Your task to perform on an android device: Add usb-c to usb-b to the cart on ebay Image 0: 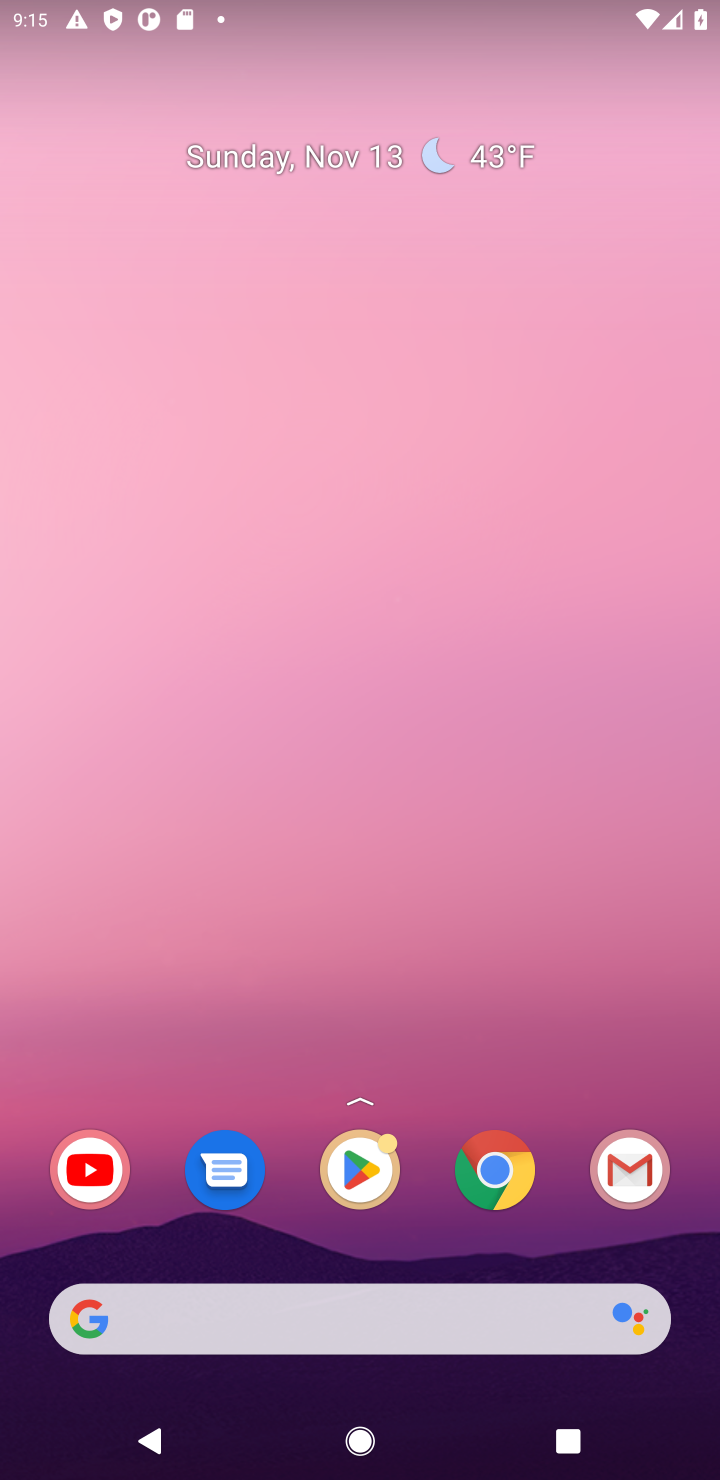
Step 0: drag from (365, 839) to (504, 199)
Your task to perform on an android device: Add usb-c to usb-b to the cart on ebay Image 1: 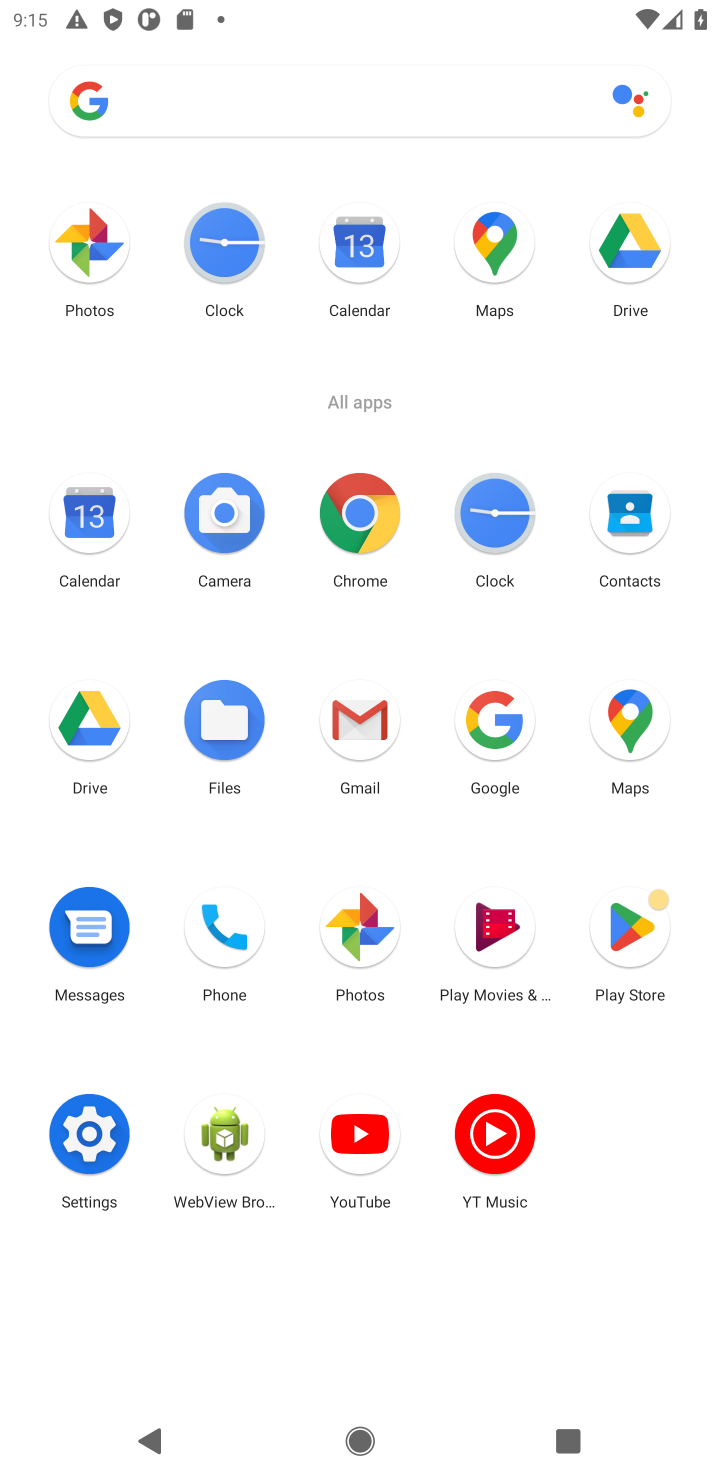
Step 1: click (356, 522)
Your task to perform on an android device: Add usb-c to usb-b to the cart on ebay Image 2: 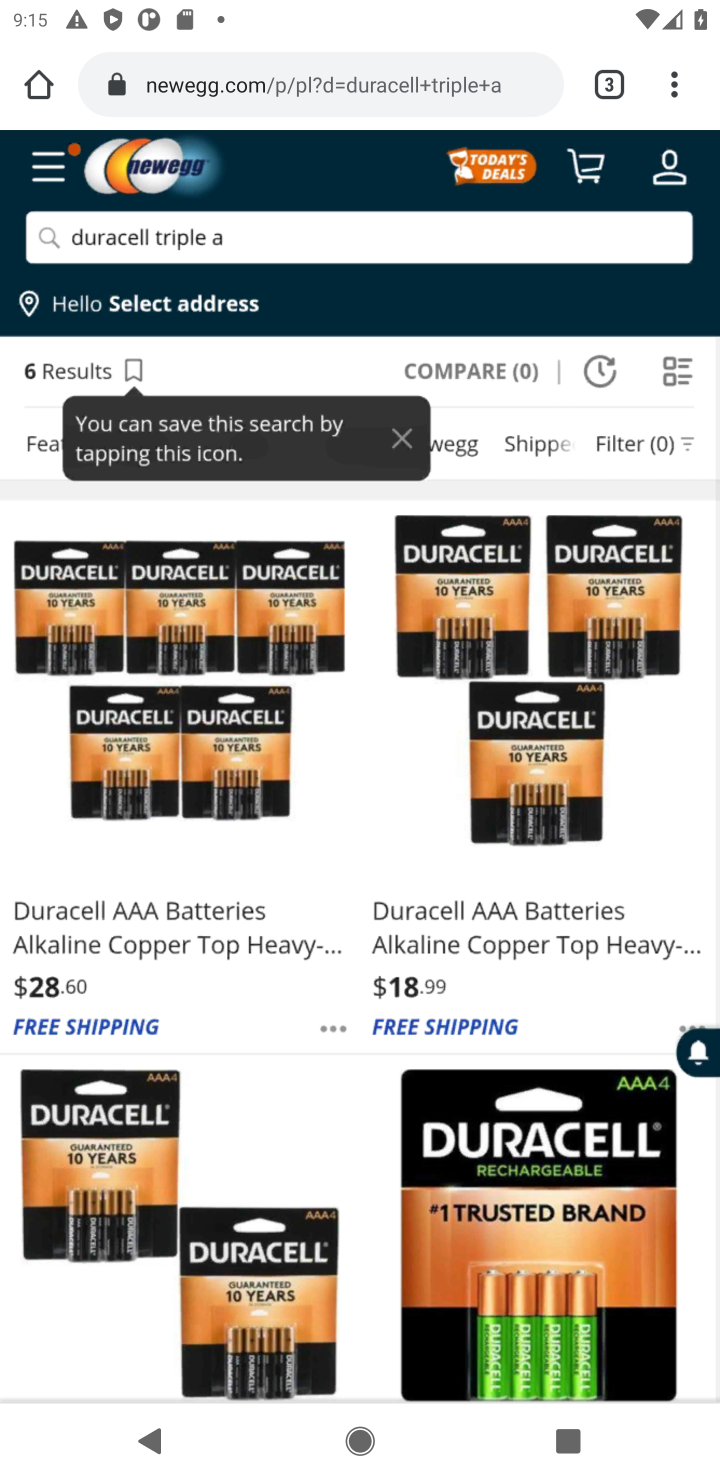
Step 2: click (315, 86)
Your task to perform on an android device: Add usb-c to usb-b to the cart on ebay Image 3: 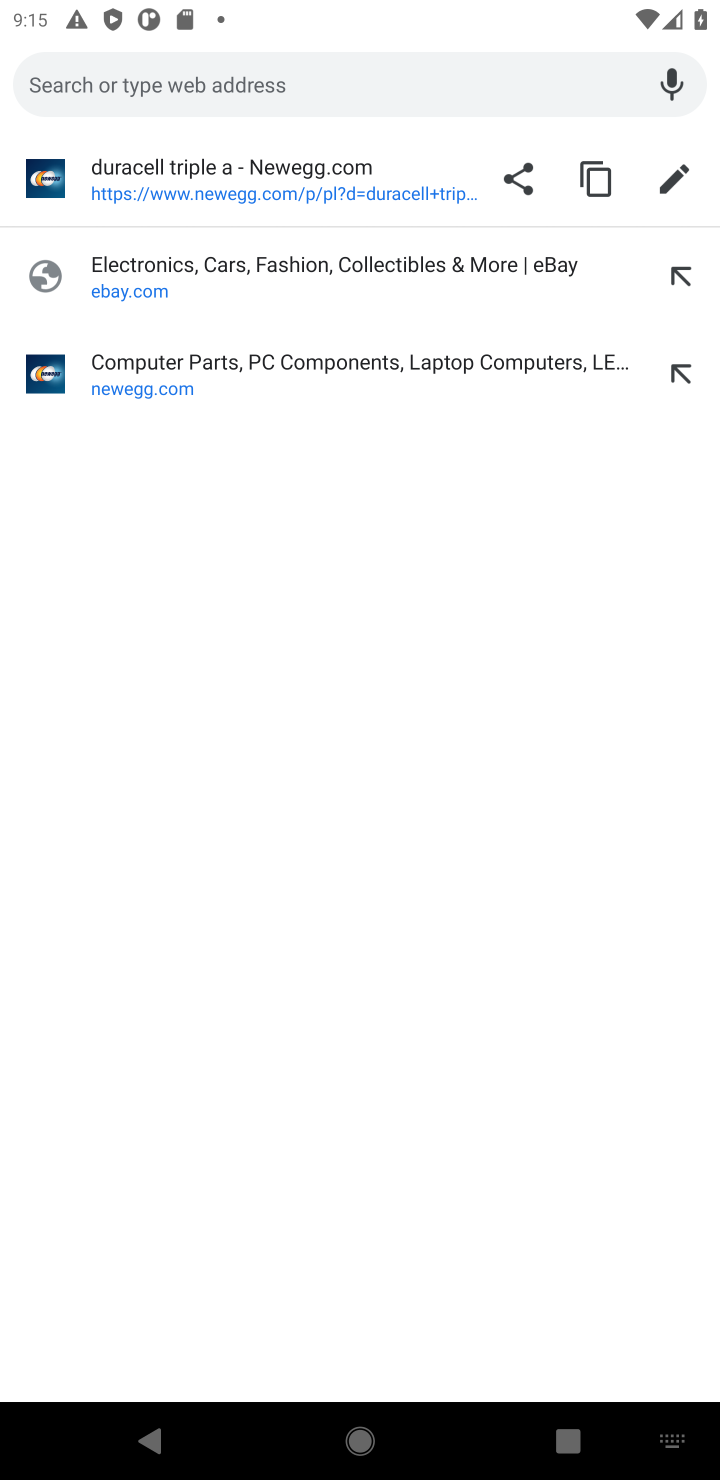
Step 3: type "ebay"
Your task to perform on an android device: Add usb-c to usb-b to the cart on ebay Image 4: 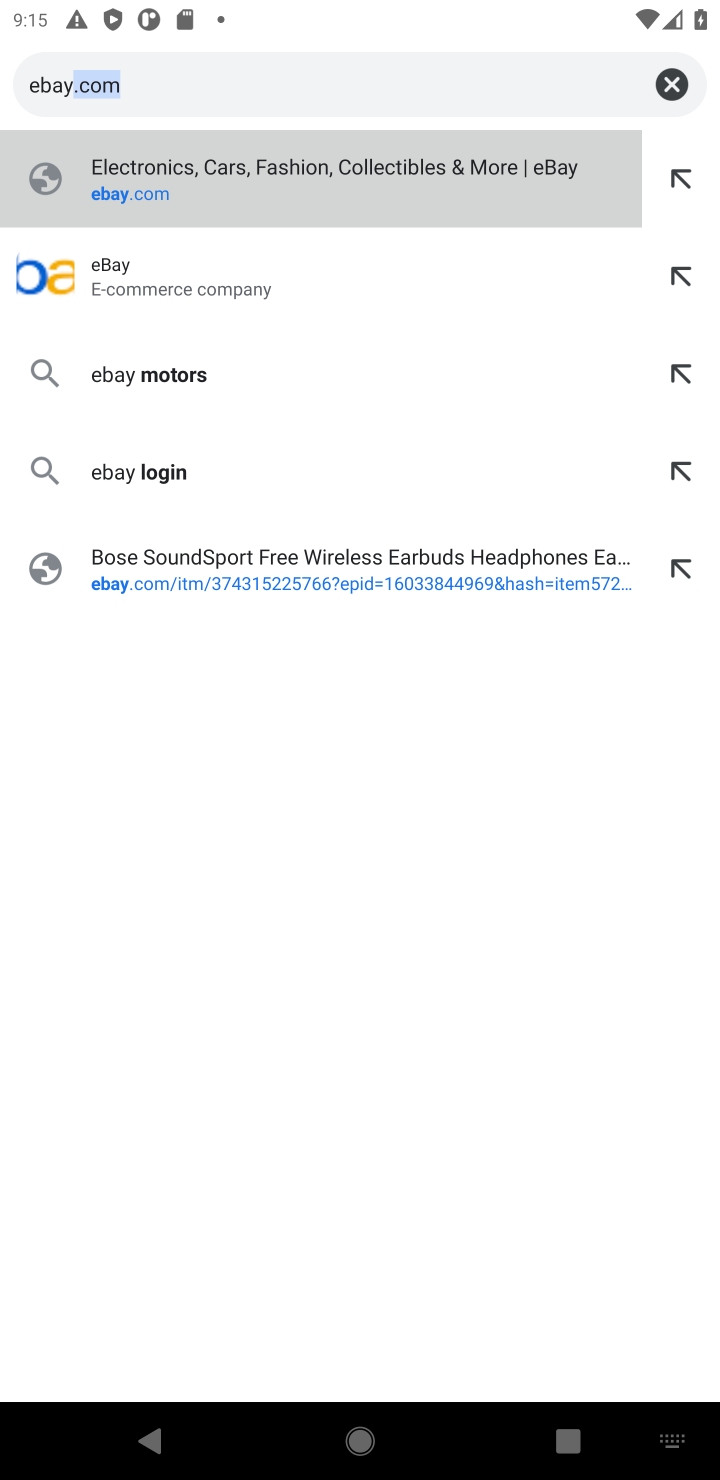
Step 4: press enter
Your task to perform on an android device: Add usb-c to usb-b to the cart on ebay Image 5: 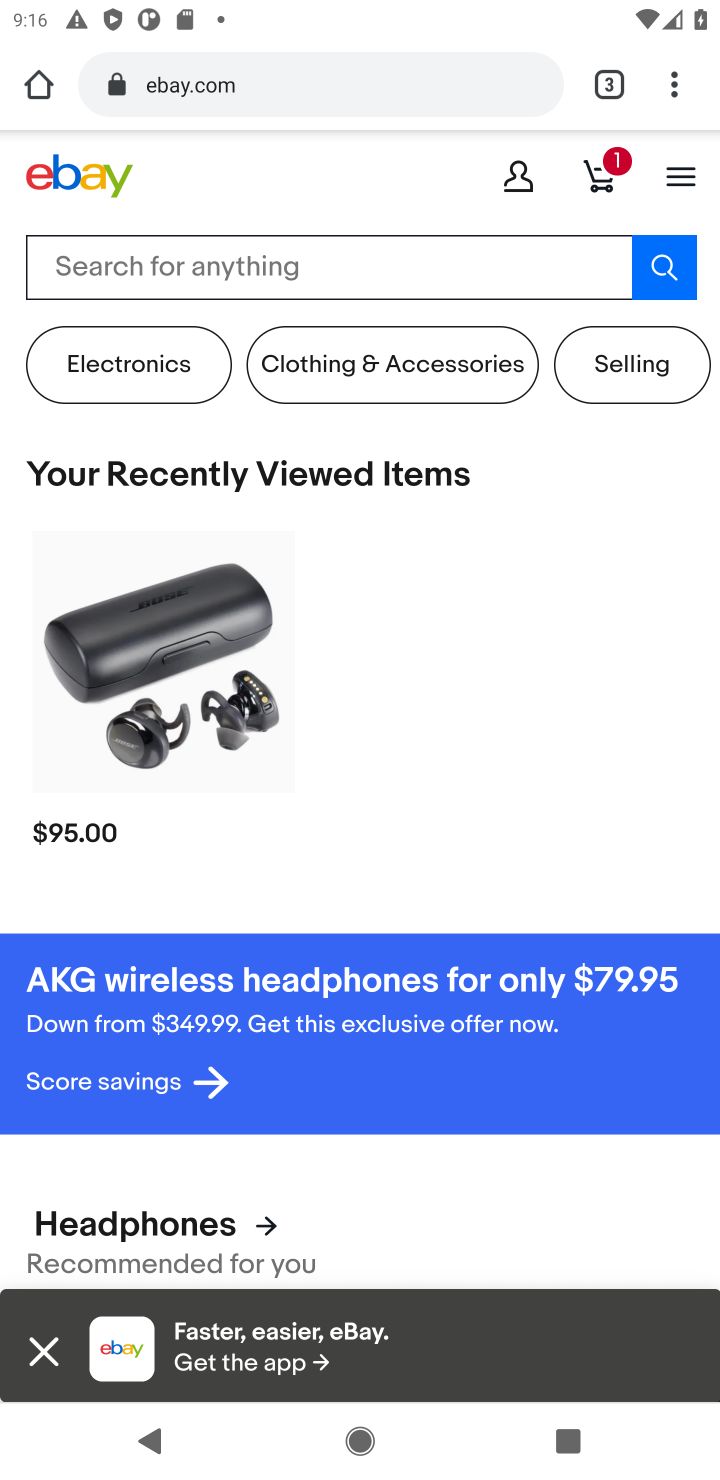
Step 5: type "usb-c to usb-b"
Your task to perform on an android device: Add usb-c to usb-b to the cart on ebay Image 6: 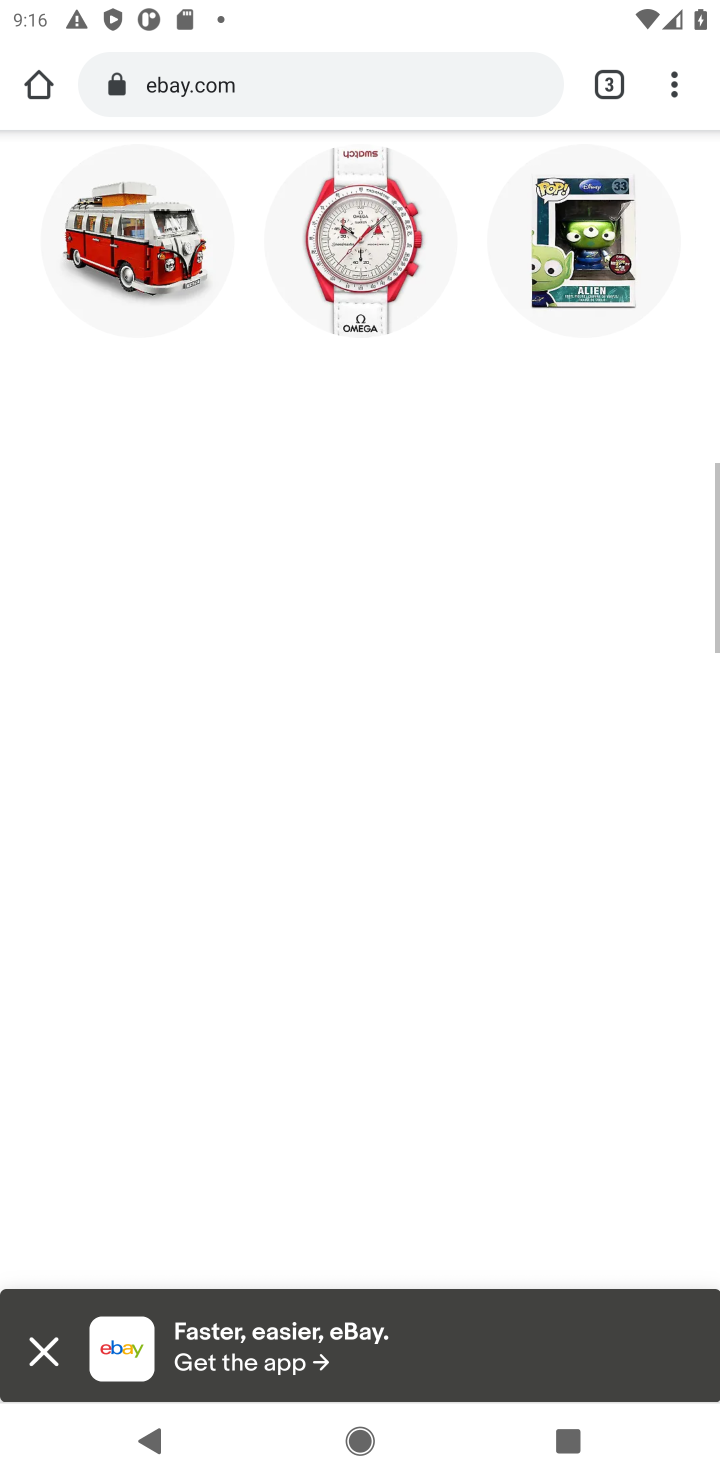
Step 6: press enter
Your task to perform on an android device: Add usb-c to usb-b to the cart on ebay Image 7: 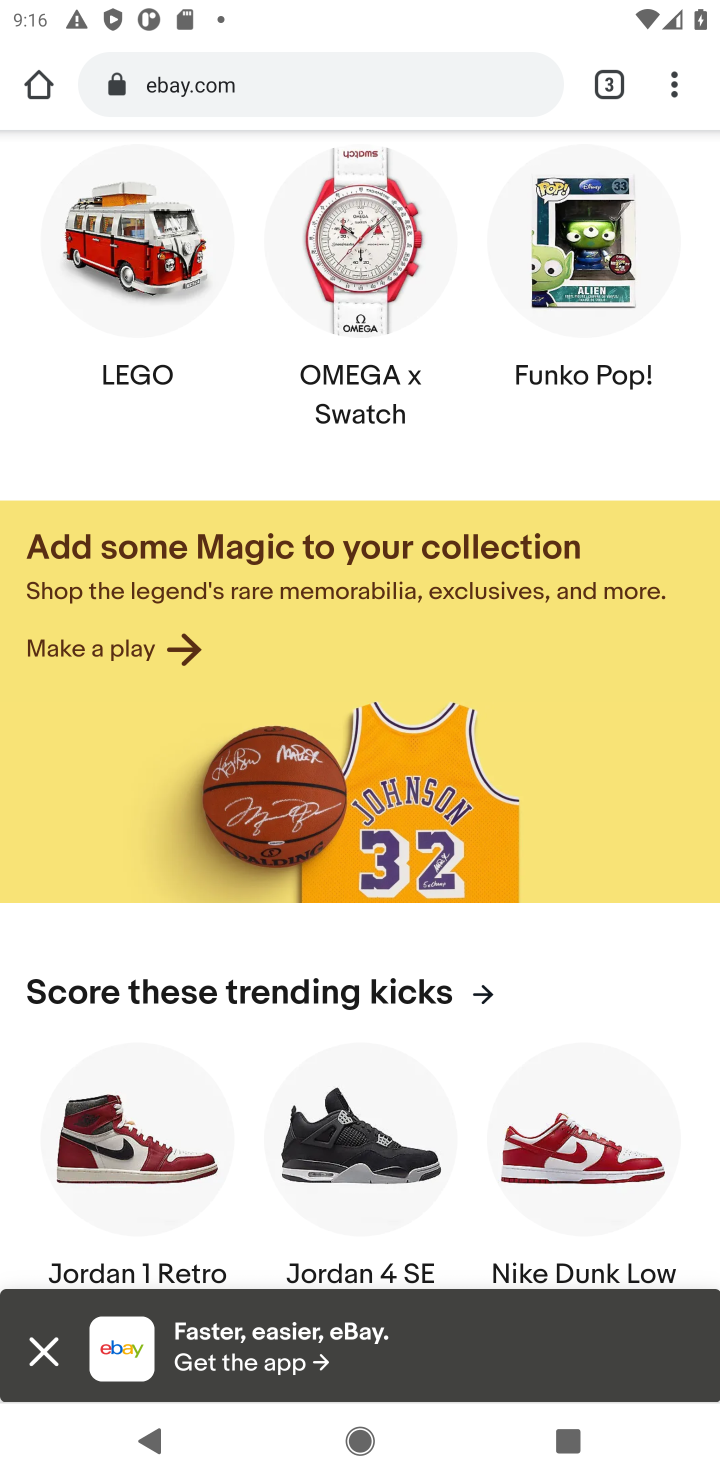
Step 7: drag from (511, 965) to (503, 1043)
Your task to perform on an android device: Add usb-c to usb-b to the cart on ebay Image 8: 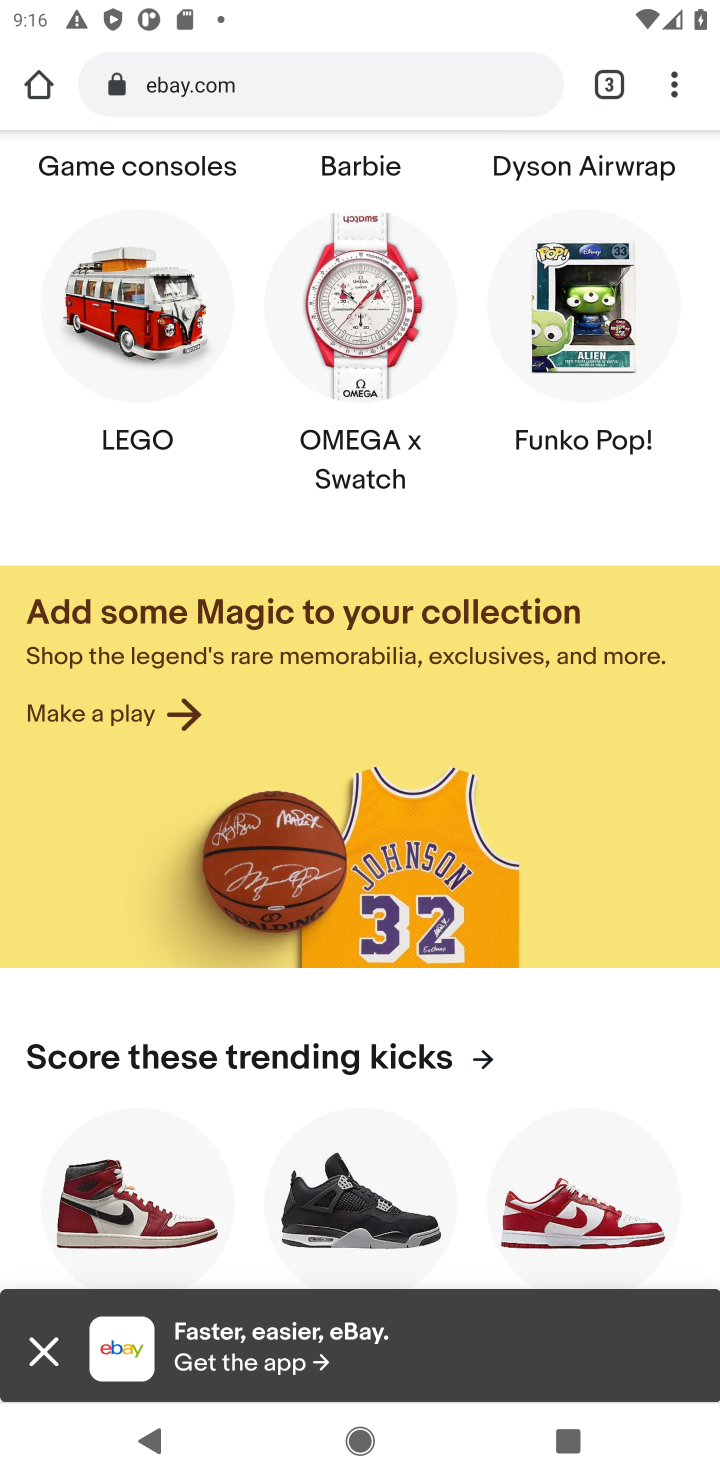
Step 8: drag from (565, 728) to (514, 916)
Your task to perform on an android device: Add usb-c to usb-b to the cart on ebay Image 9: 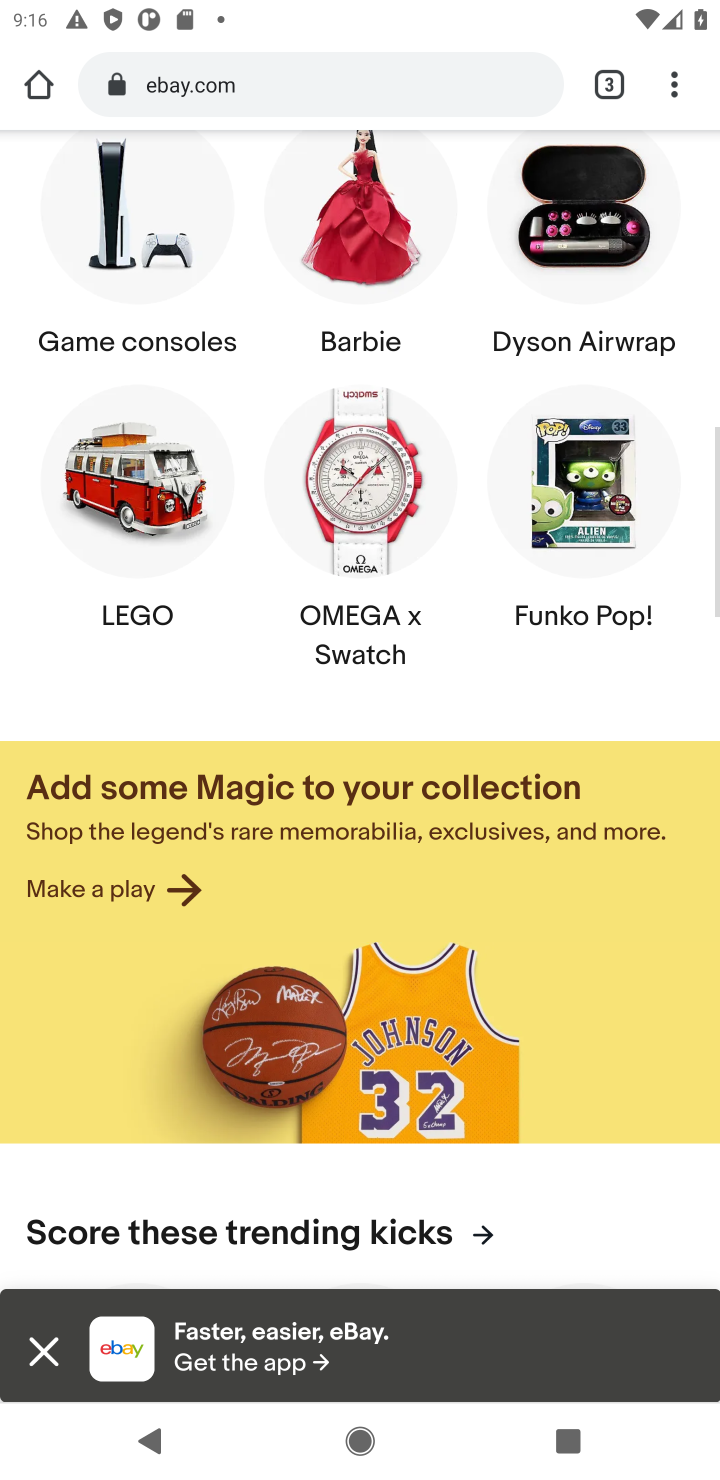
Step 9: drag from (462, 454) to (419, 918)
Your task to perform on an android device: Add usb-c to usb-b to the cart on ebay Image 10: 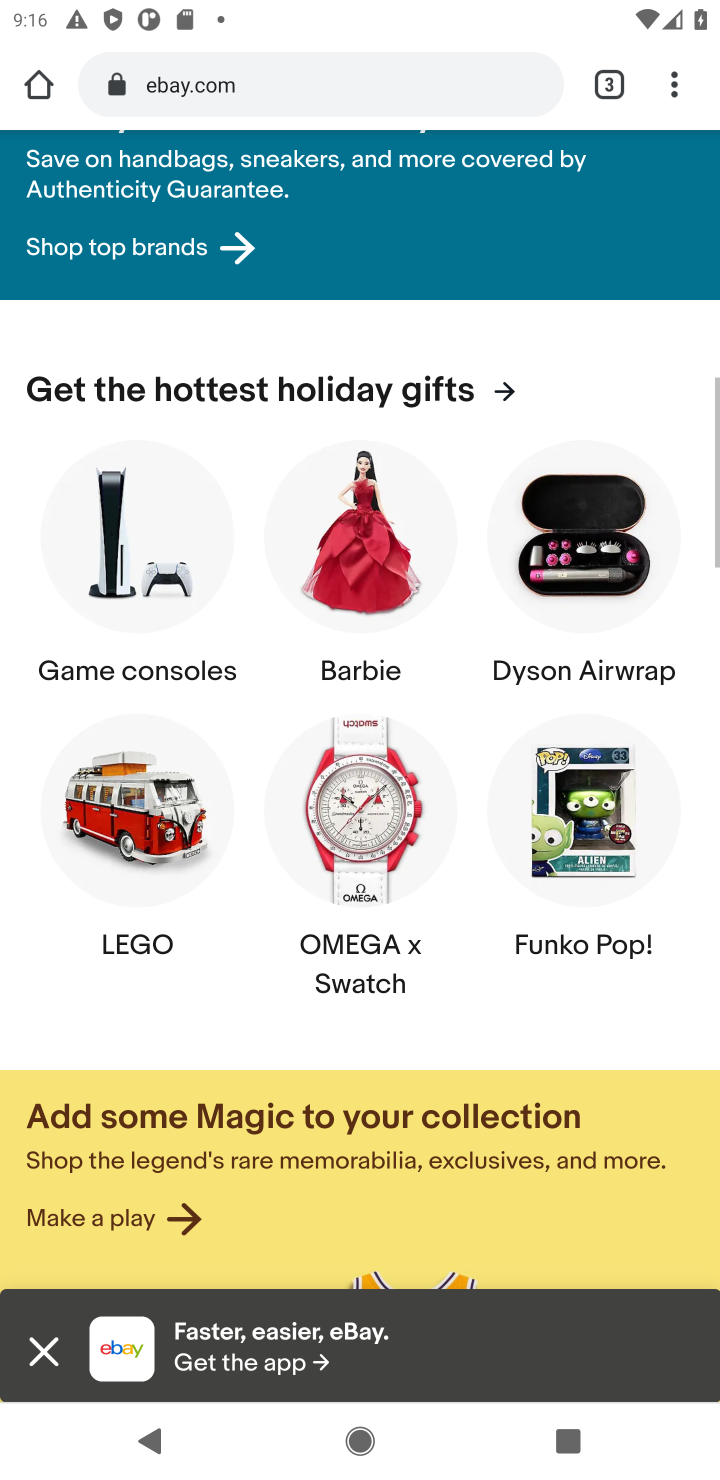
Step 10: drag from (659, 909) to (624, 1080)
Your task to perform on an android device: Add usb-c to usb-b to the cart on ebay Image 11: 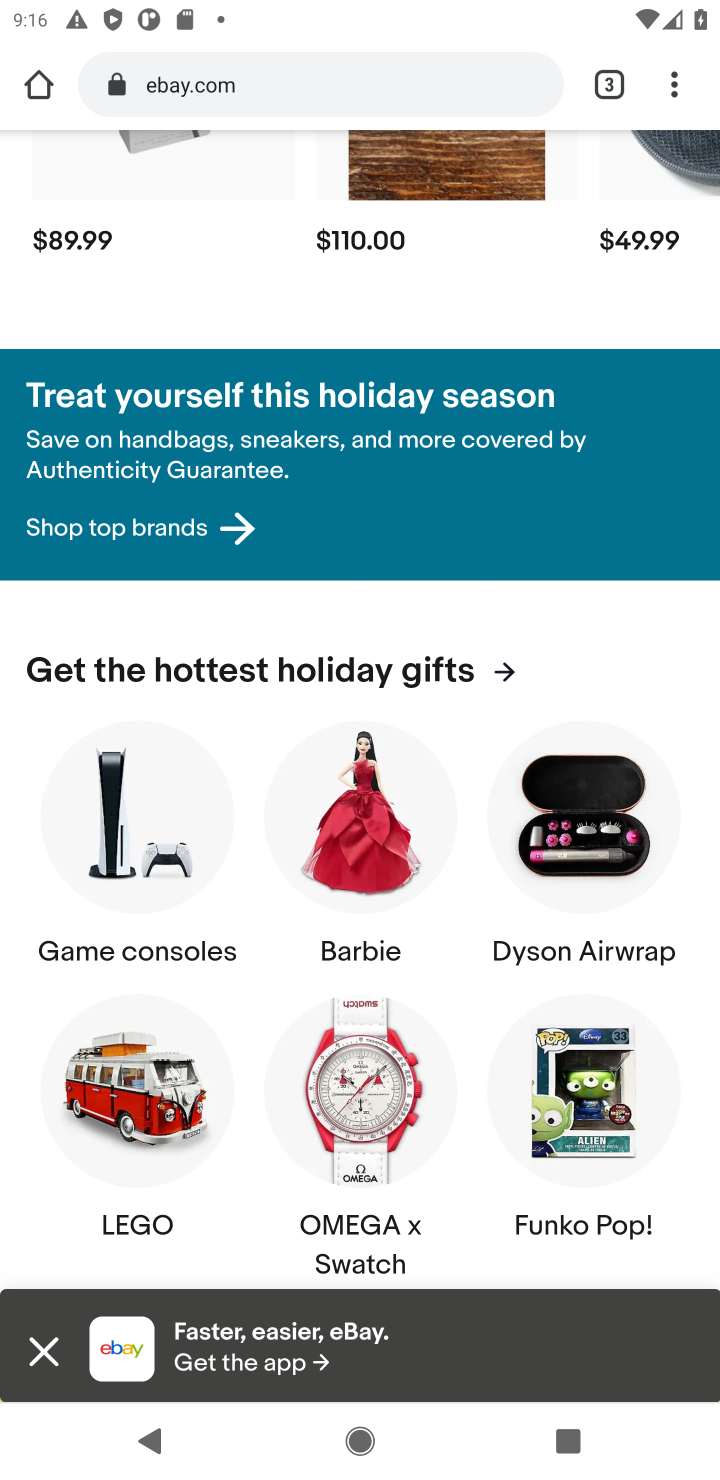
Step 11: drag from (376, 474) to (302, 791)
Your task to perform on an android device: Add usb-c to usb-b to the cart on ebay Image 12: 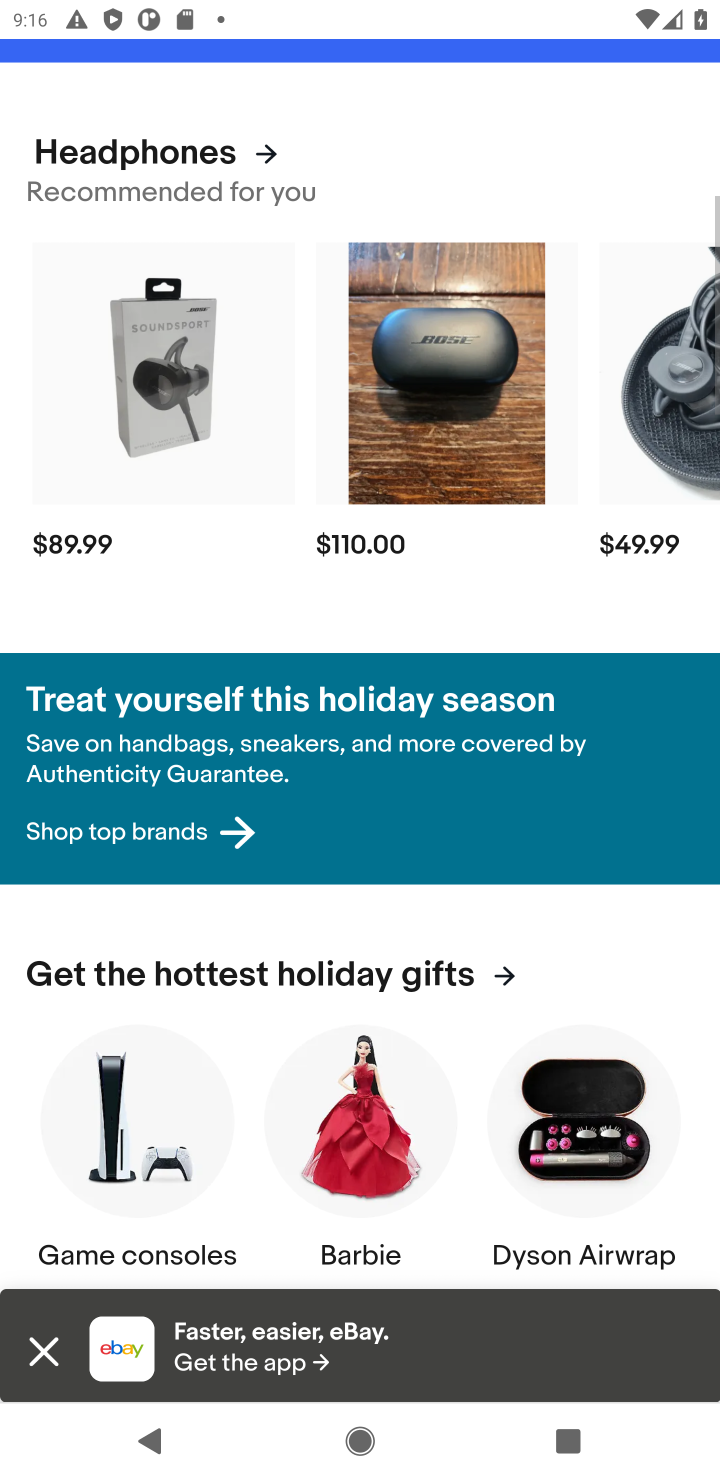
Step 12: click (301, 738)
Your task to perform on an android device: Add usb-c to usb-b to the cart on ebay Image 13: 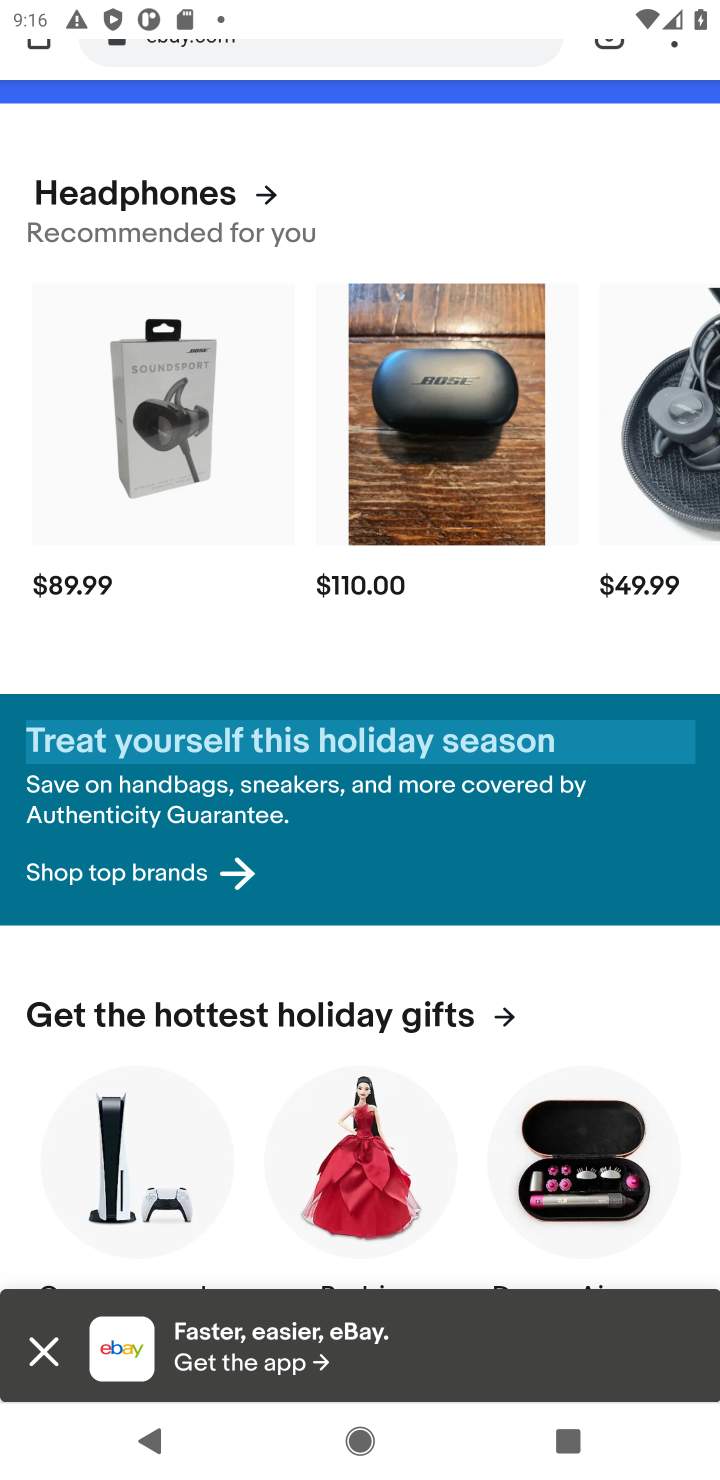
Step 13: click (443, 427)
Your task to perform on an android device: Add usb-c to usb-b to the cart on ebay Image 14: 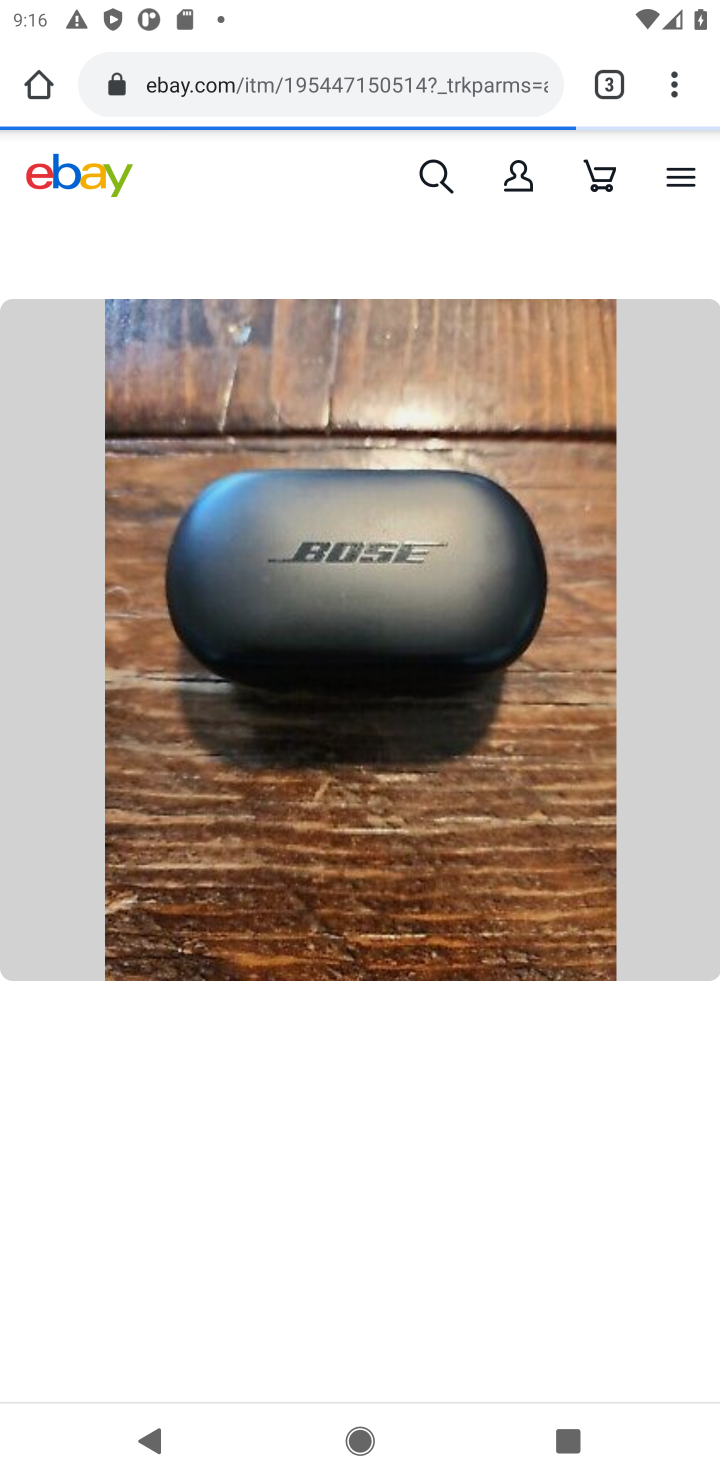
Step 14: press back button
Your task to perform on an android device: Add usb-c to usb-b to the cart on ebay Image 15: 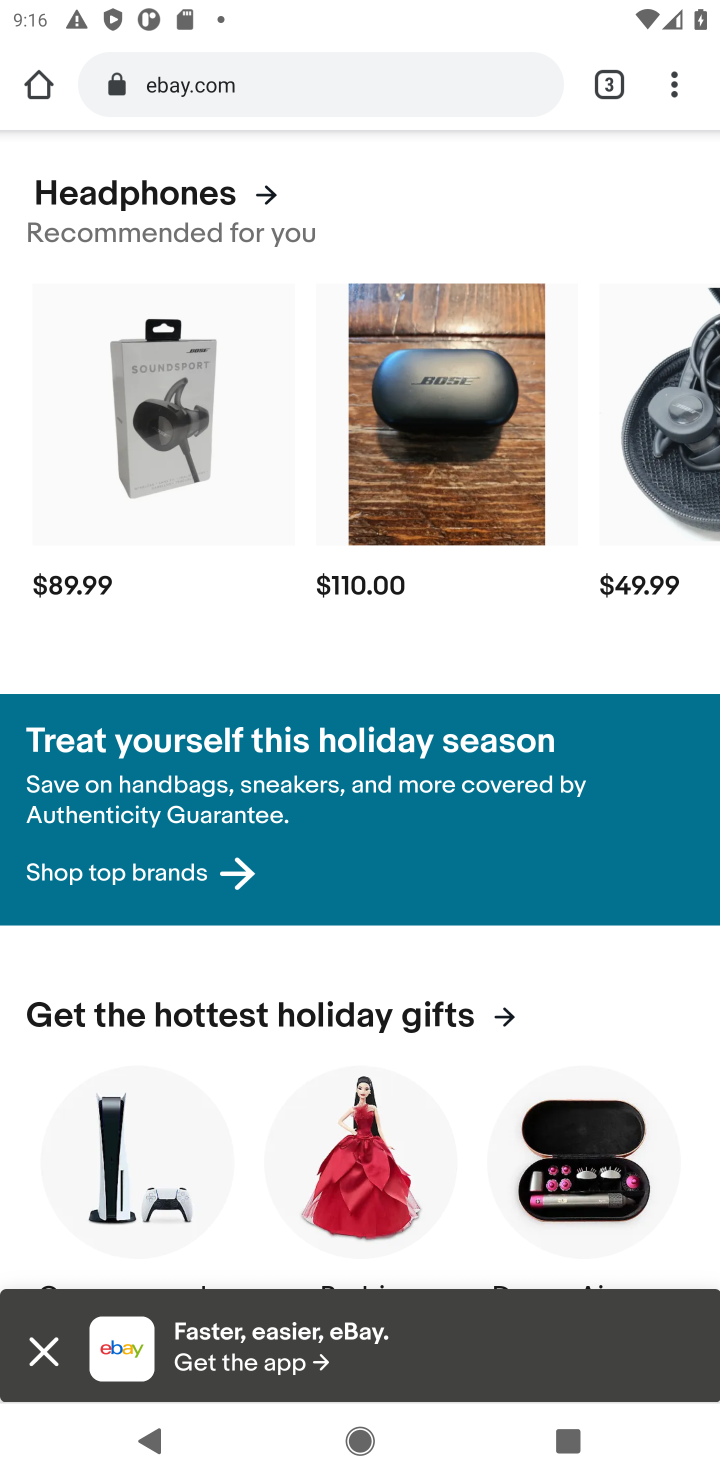
Step 15: drag from (463, 242) to (372, 1422)
Your task to perform on an android device: Add usb-c to usb-b to the cart on ebay Image 16: 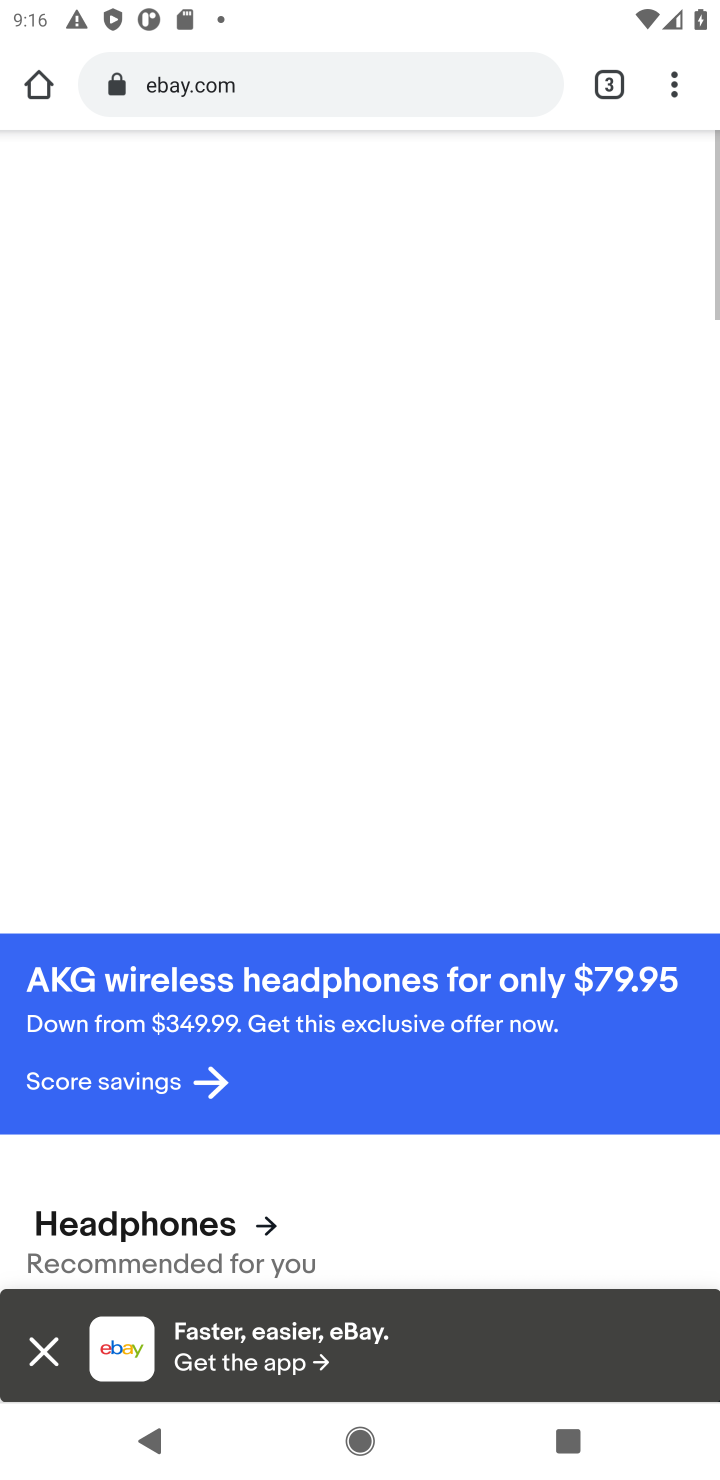
Step 16: drag from (459, 796) to (484, 1216)
Your task to perform on an android device: Add usb-c to usb-b to the cart on ebay Image 17: 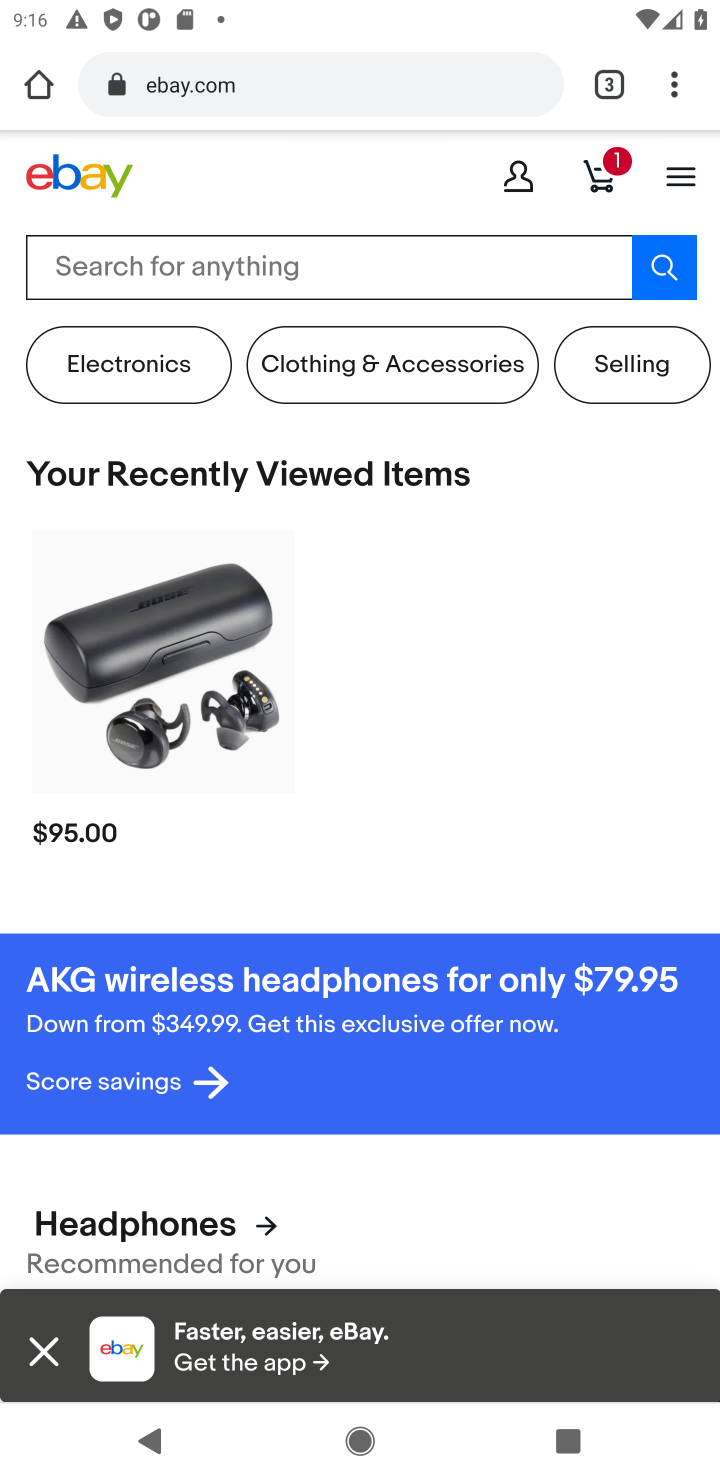
Step 17: drag from (588, 301) to (501, 1106)
Your task to perform on an android device: Add usb-c to usb-b to the cart on ebay Image 18: 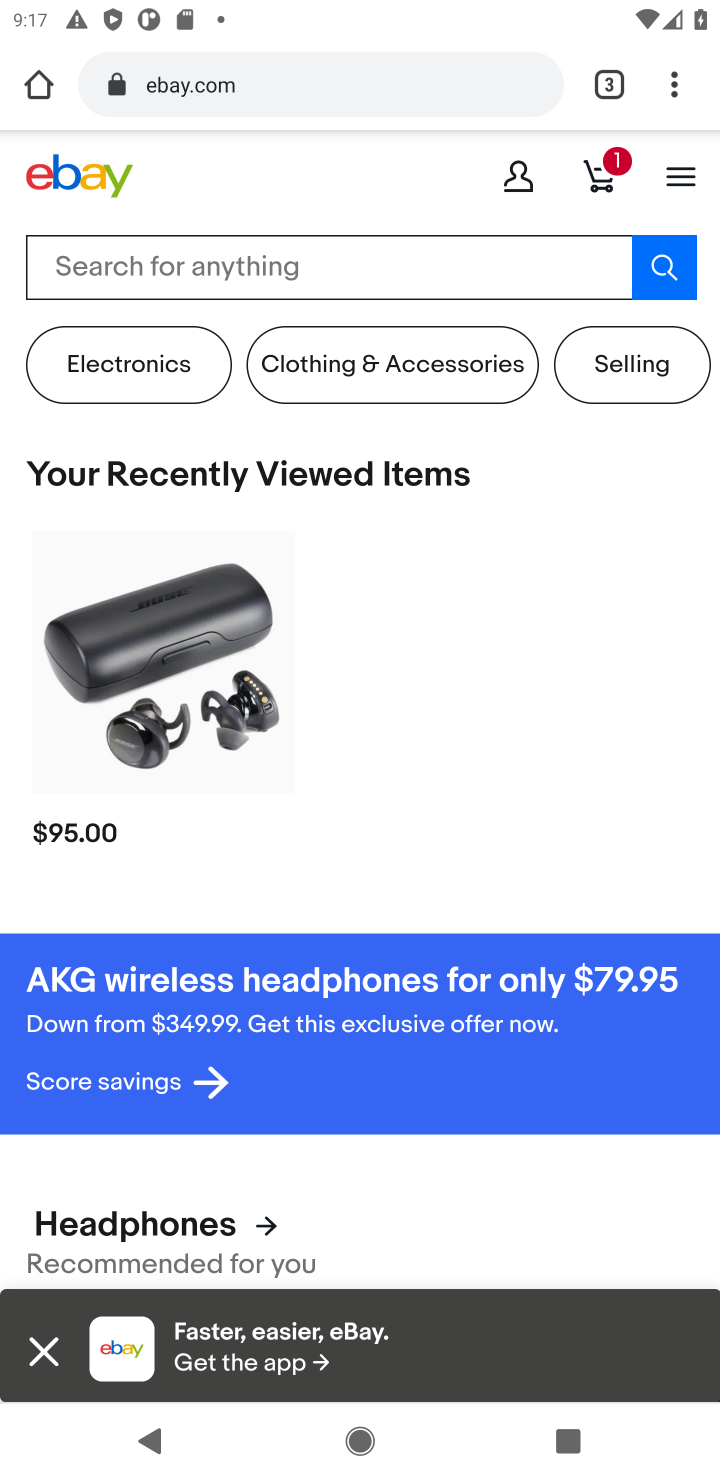
Step 18: click (279, 253)
Your task to perform on an android device: Add usb-c to usb-b to the cart on ebay Image 19: 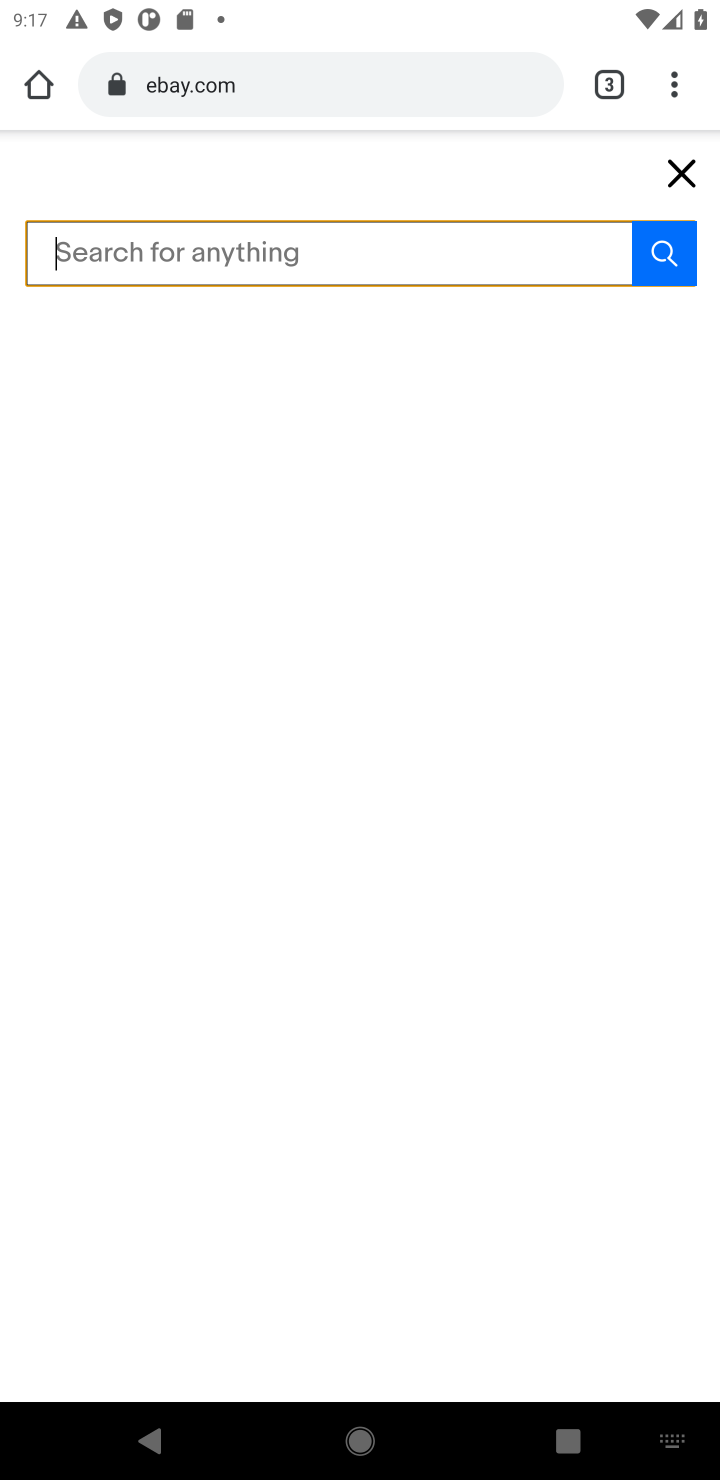
Step 19: type "usb-c to usb-b "
Your task to perform on an android device: Add usb-c to usb-b to the cart on ebay Image 20: 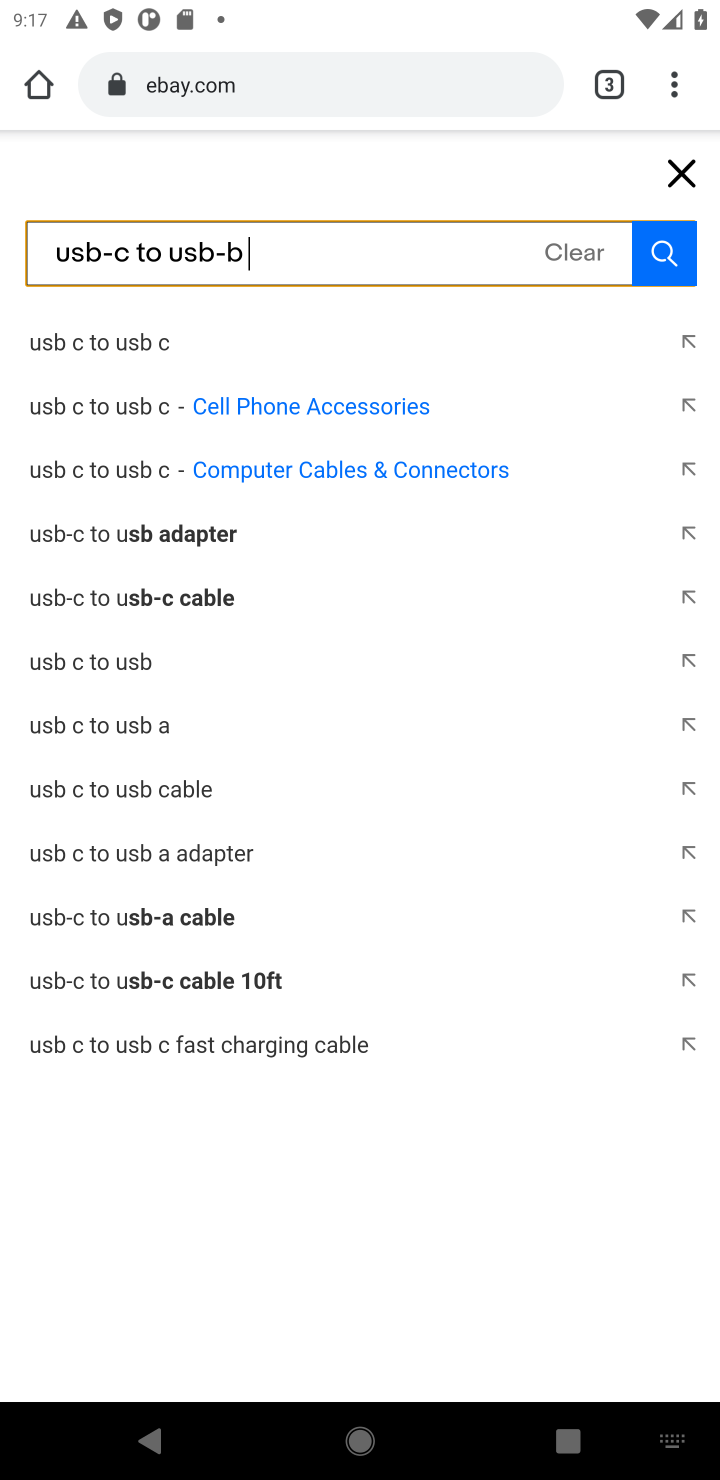
Step 20: press enter
Your task to perform on an android device: Add usb-c to usb-b to the cart on ebay Image 21: 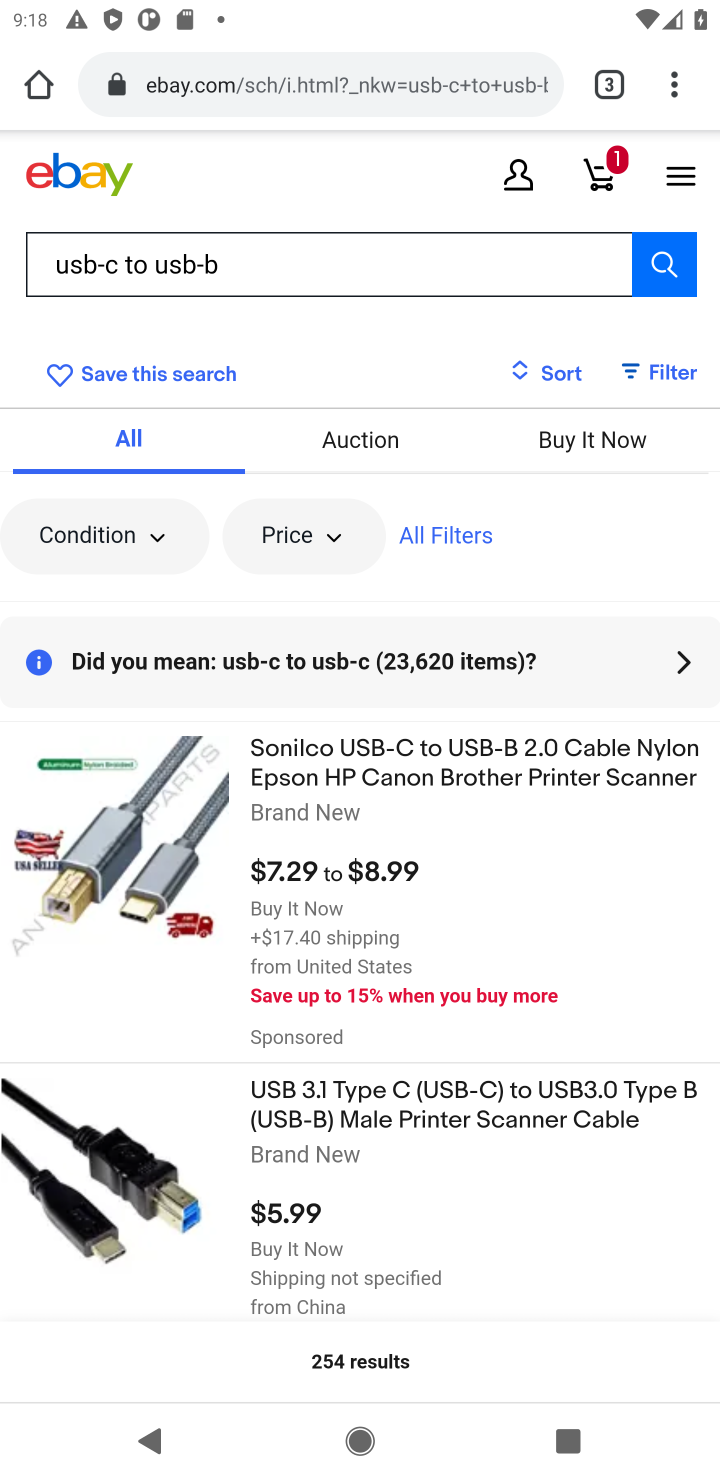
Step 21: click (607, 760)
Your task to perform on an android device: Add usb-c to usb-b to the cart on ebay Image 22: 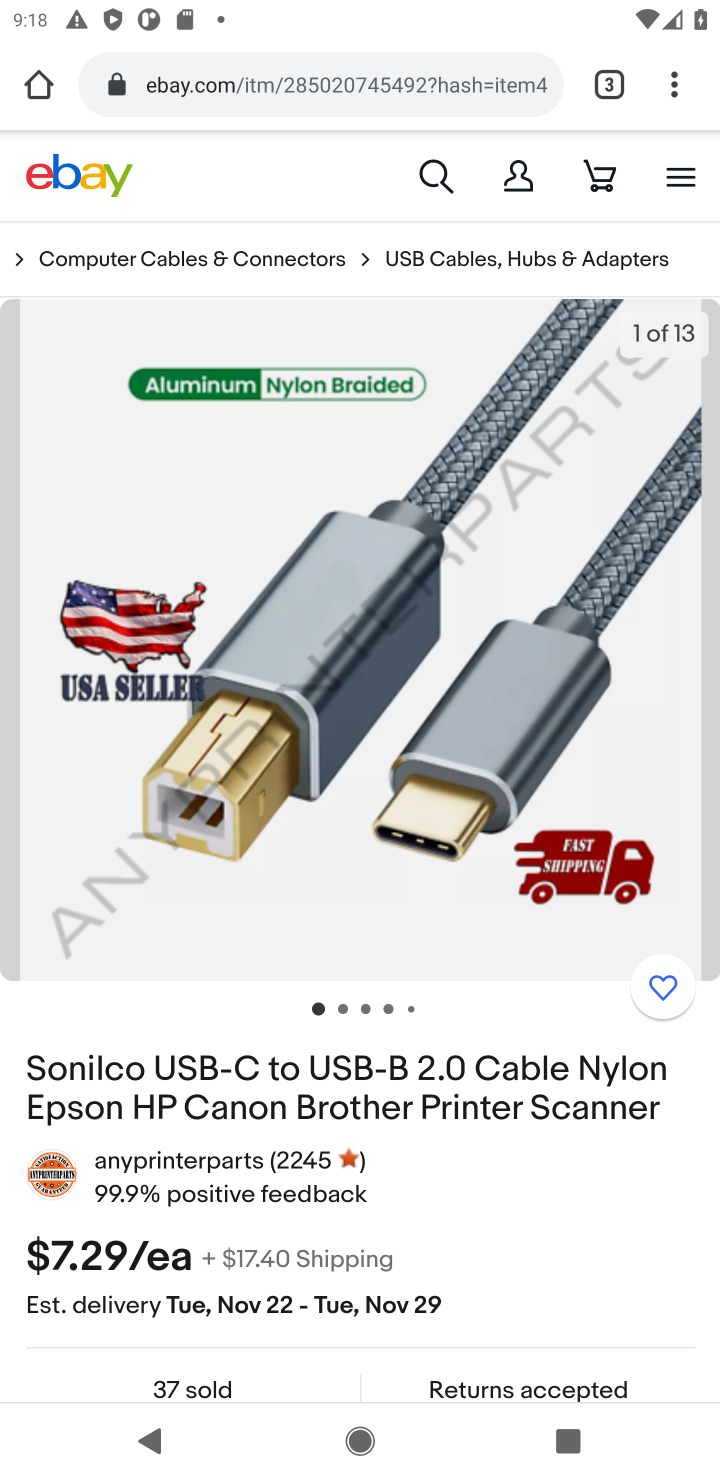
Step 22: drag from (499, 882) to (506, 628)
Your task to perform on an android device: Add usb-c to usb-b to the cart on ebay Image 23: 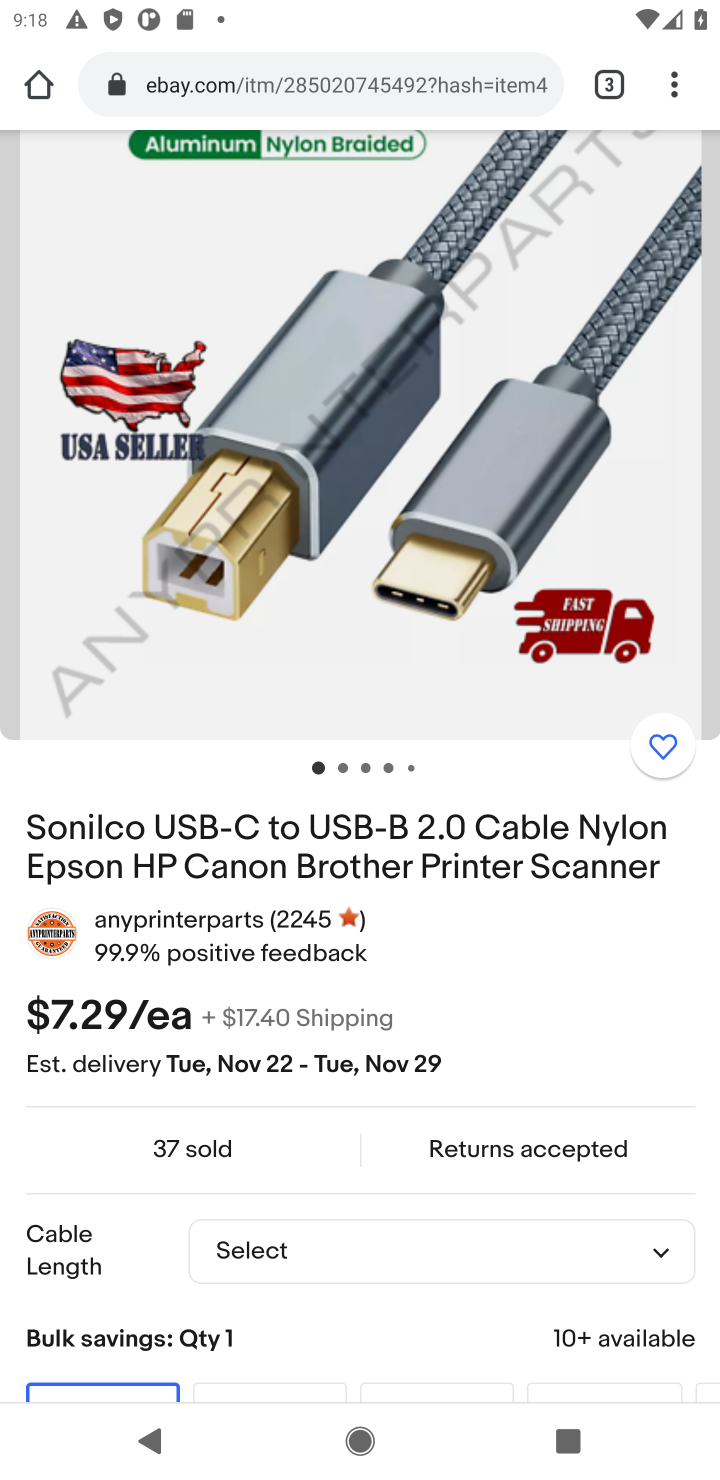
Step 23: drag from (376, 1211) to (470, 678)
Your task to perform on an android device: Add usb-c to usb-b to the cart on ebay Image 24: 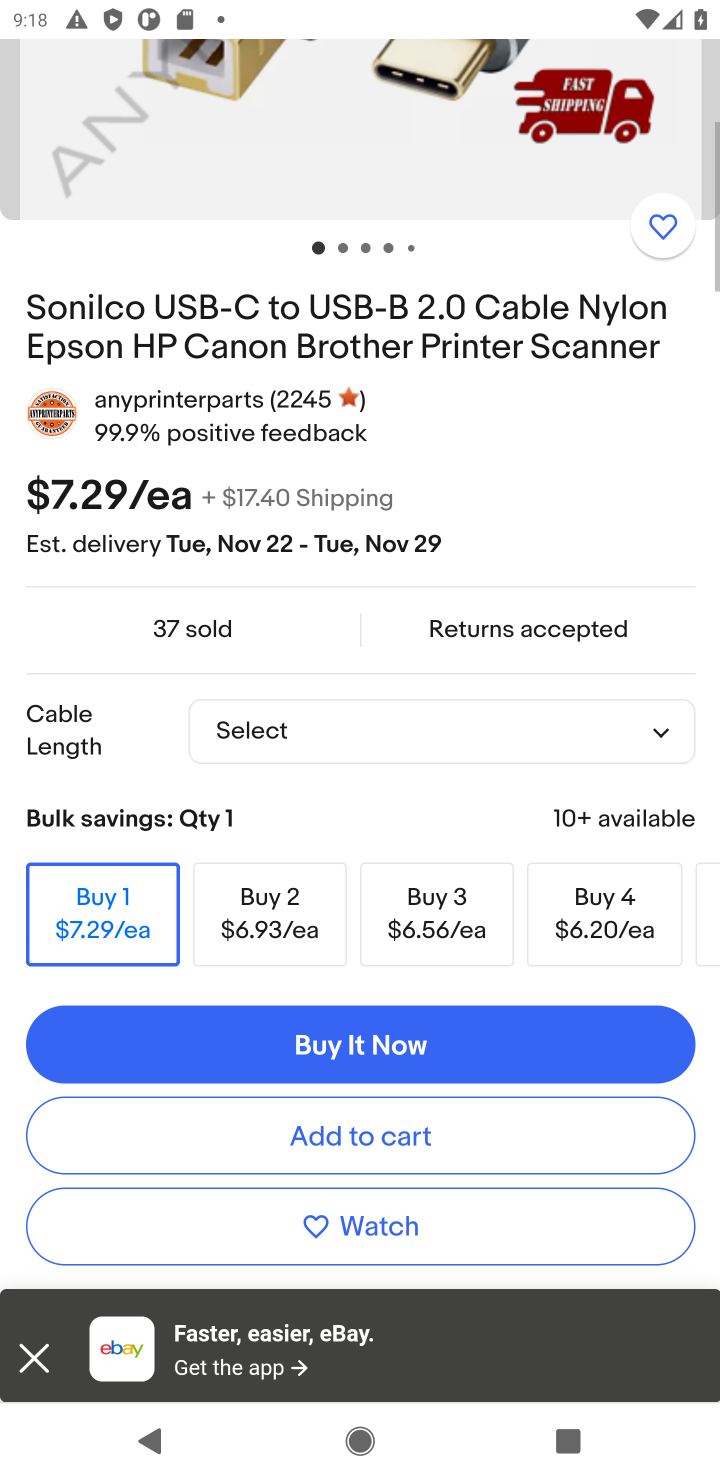
Step 24: drag from (528, 756) to (520, 674)
Your task to perform on an android device: Add usb-c to usb-b to the cart on ebay Image 25: 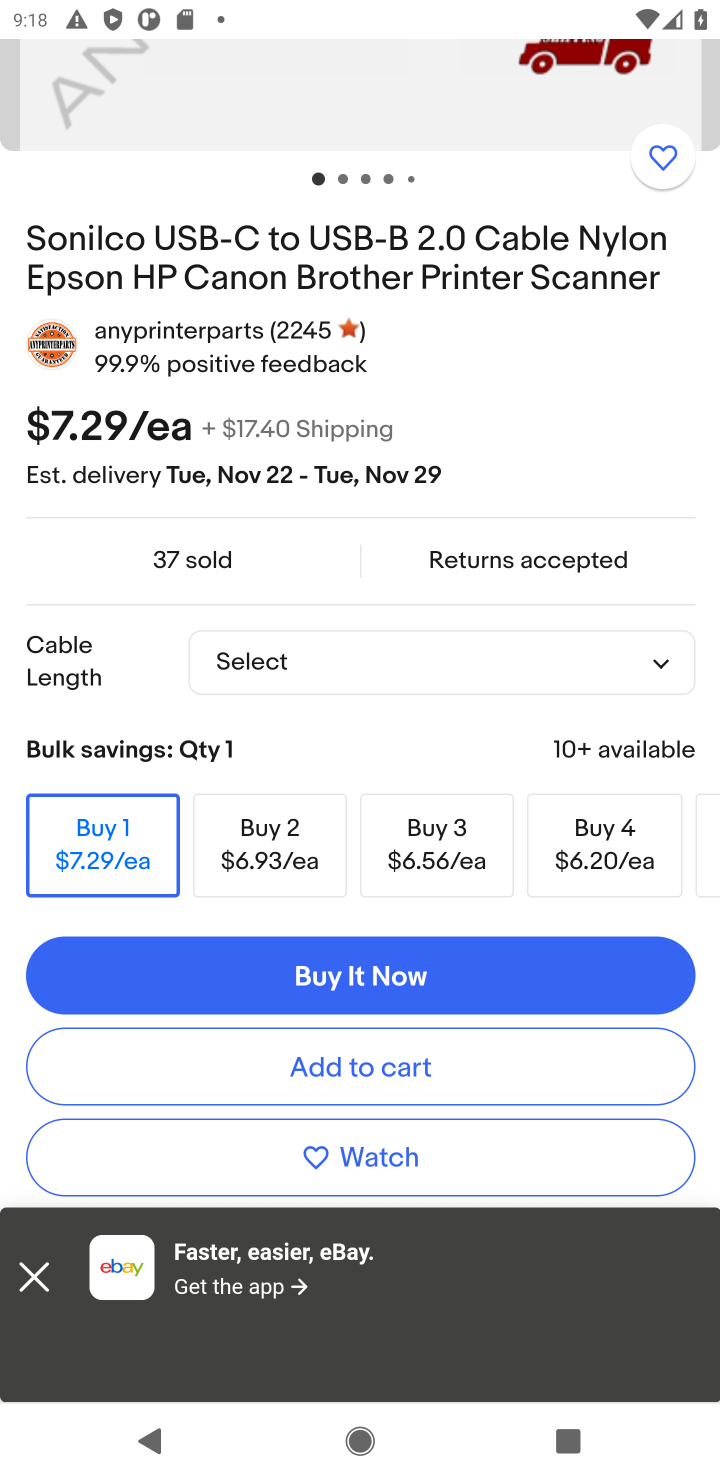
Step 25: click (404, 1076)
Your task to perform on an android device: Add usb-c to usb-b to the cart on ebay Image 26: 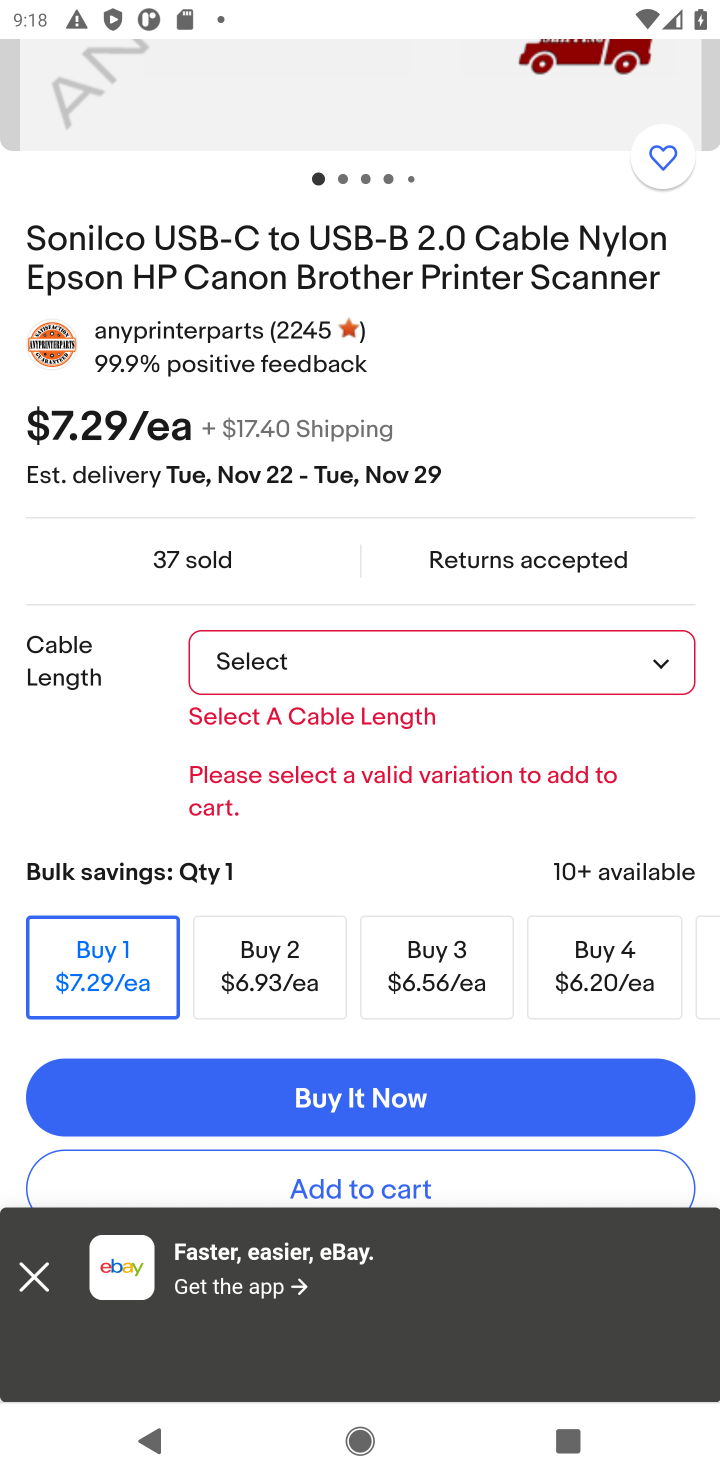
Step 26: click (686, 675)
Your task to perform on an android device: Add usb-c to usb-b to the cart on ebay Image 27: 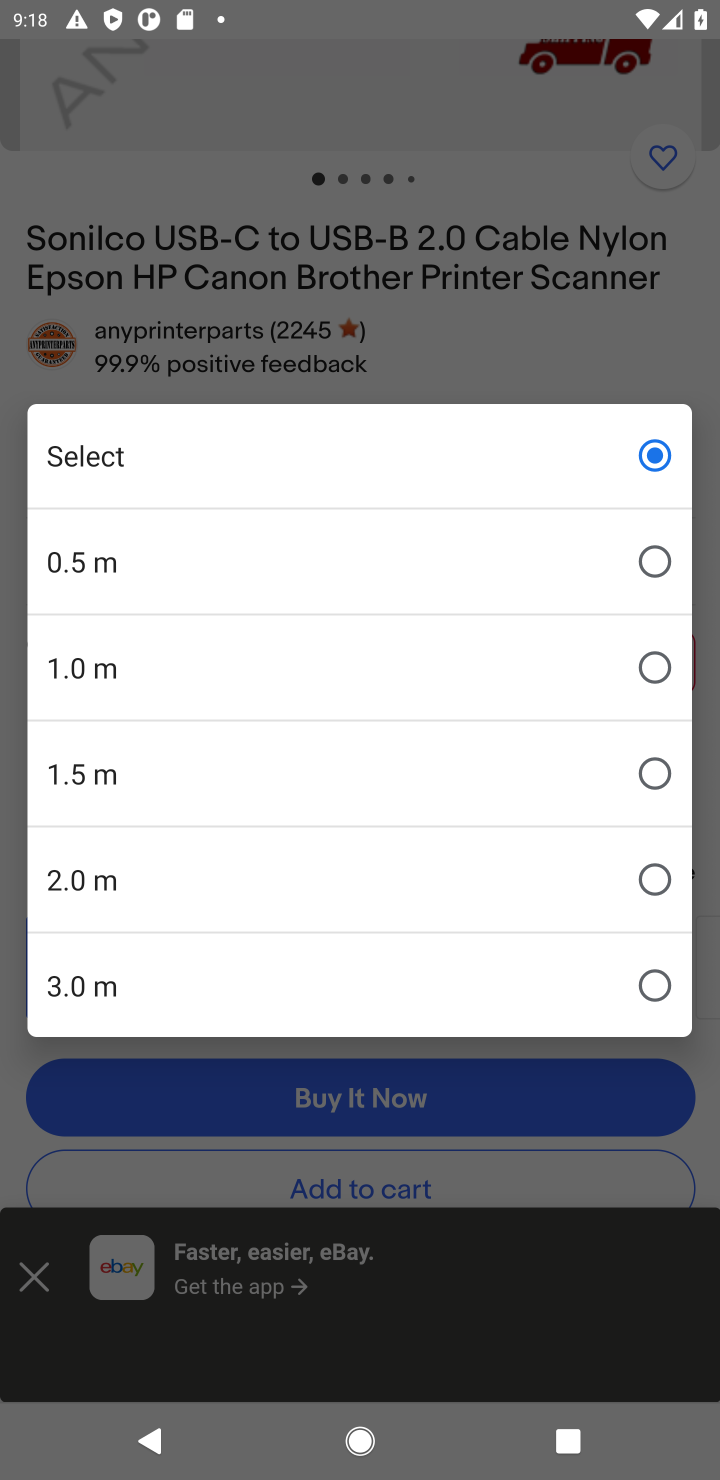
Step 27: click (261, 671)
Your task to perform on an android device: Add usb-c to usb-b to the cart on ebay Image 28: 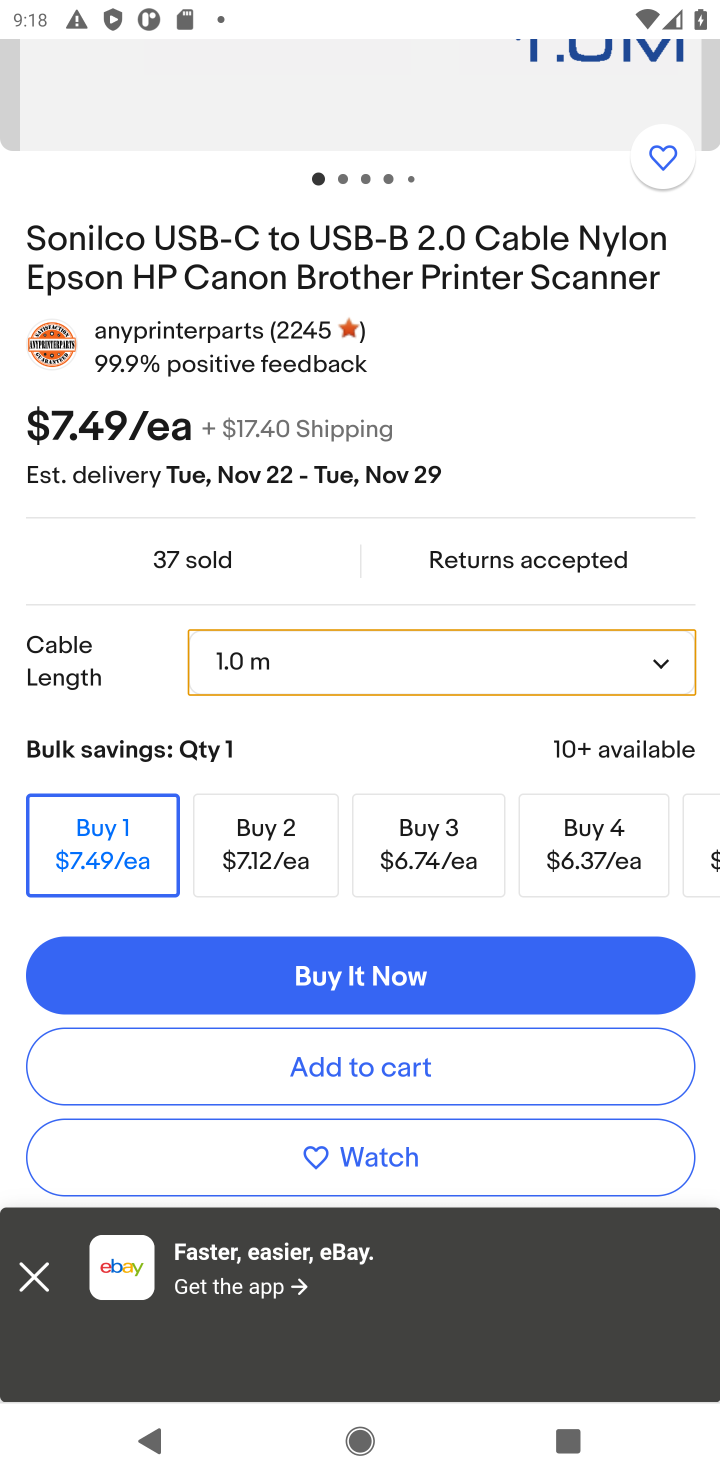
Step 28: click (367, 1055)
Your task to perform on an android device: Add usb-c to usb-b to the cart on ebay Image 29: 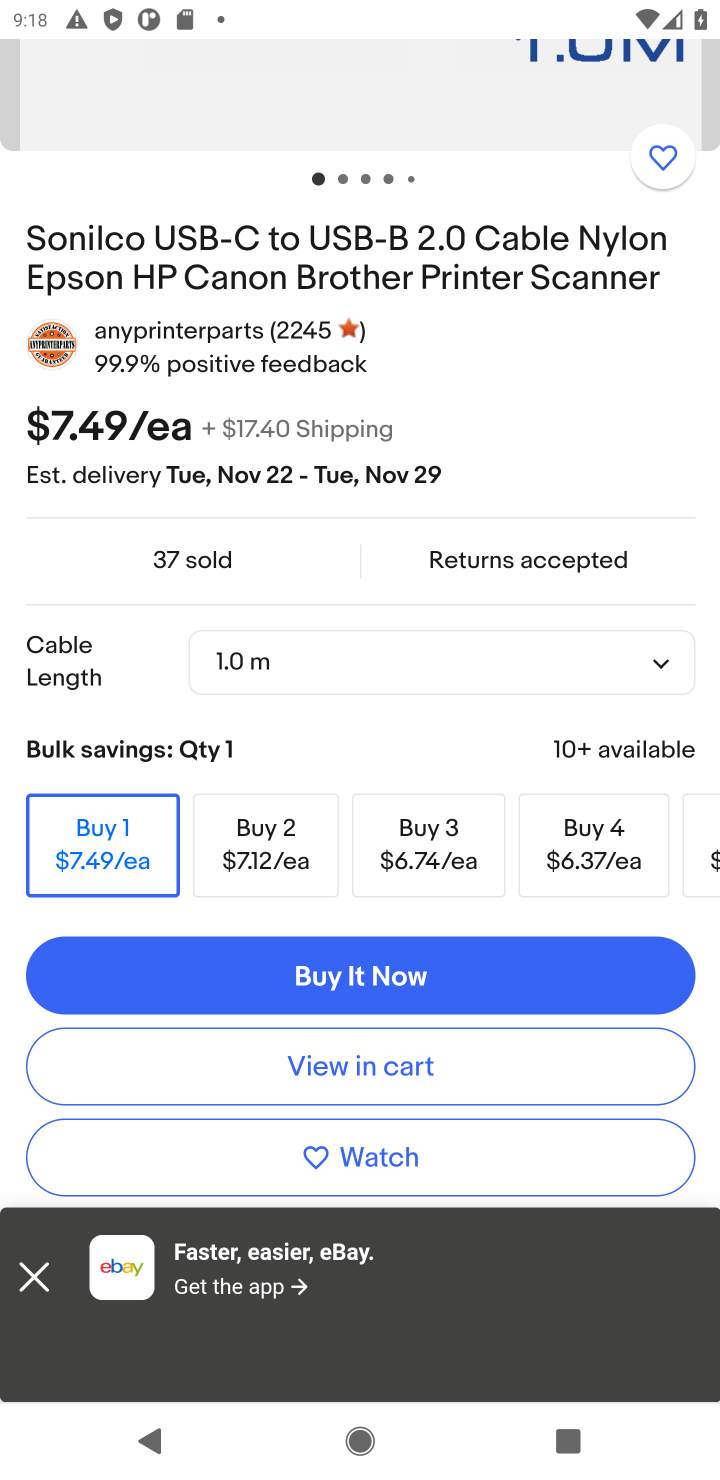
Step 29: task complete